Your task to perform on an android device: Do I have any events tomorrow? Image 0: 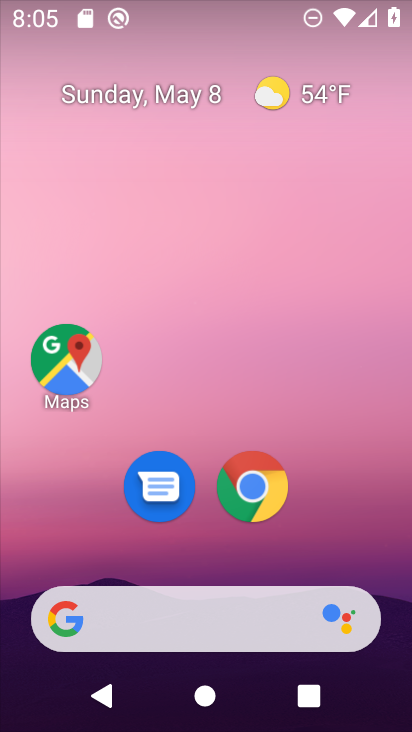
Step 0: drag from (190, 526) to (197, 157)
Your task to perform on an android device: Do I have any events tomorrow? Image 1: 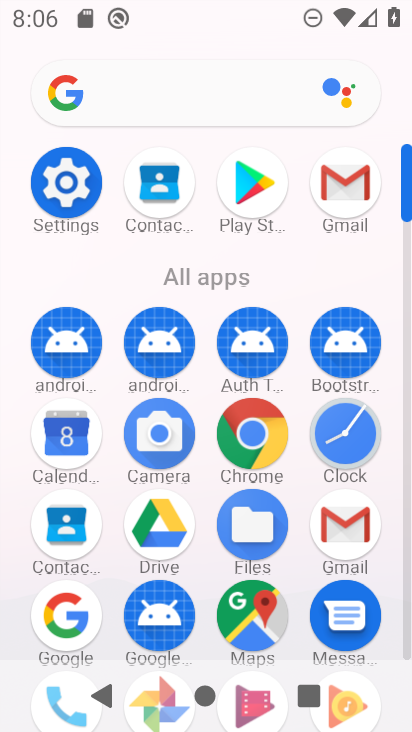
Step 1: click (61, 446)
Your task to perform on an android device: Do I have any events tomorrow? Image 2: 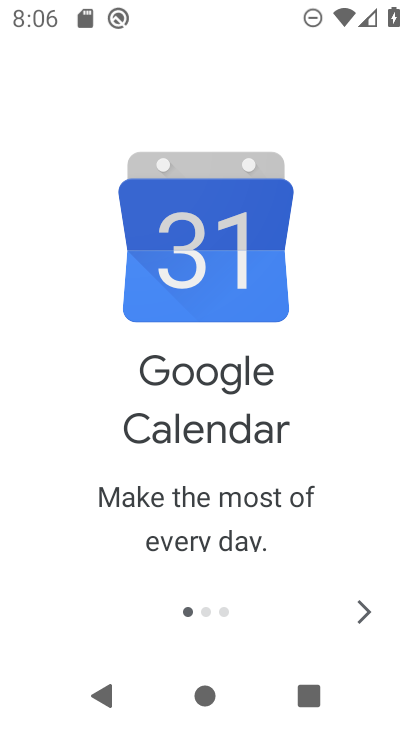
Step 2: click (350, 616)
Your task to perform on an android device: Do I have any events tomorrow? Image 3: 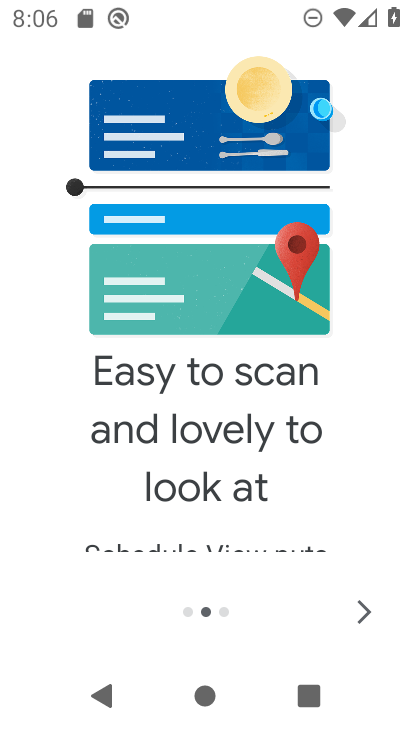
Step 3: click (367, 612)
Your task to perform on an android device: Do I have any events tomorrow? Image 4: 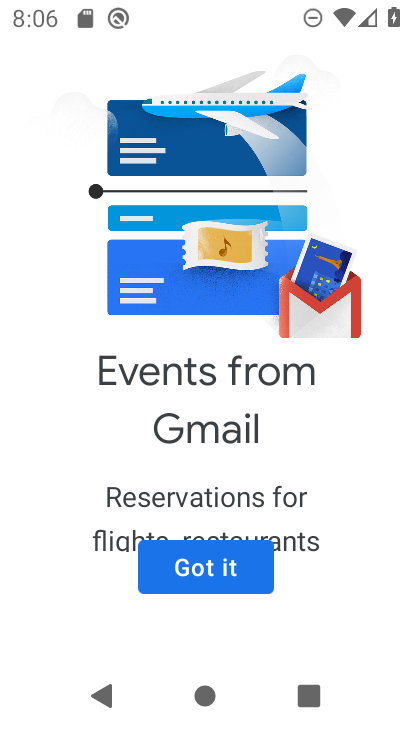
Step 4: click (231, 575)
Your task to perform on an android device: Do I have any events tomorrow? Image 5: 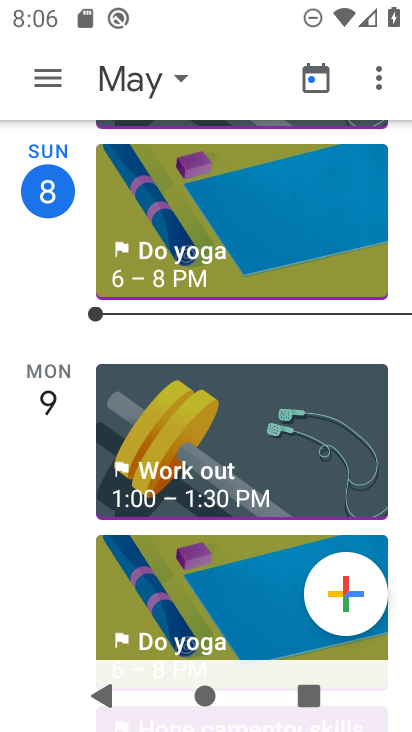
Step 5: click (171, 76)
Your task to perform on an android device: Do I have any events tomorrow? Image 6: 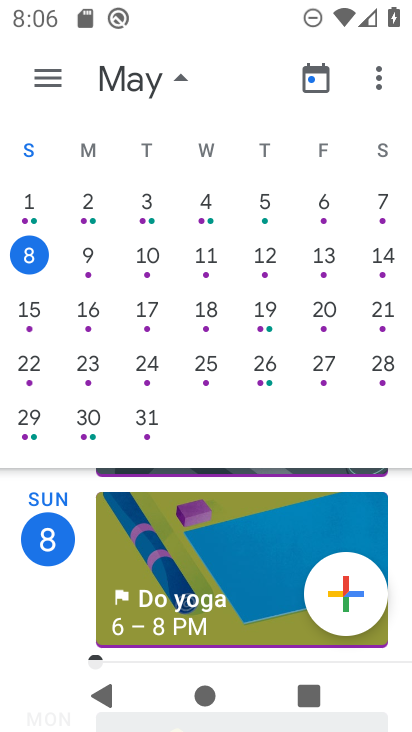
Step 6: click (91, 251)
Your task to perform on an android device: Do I have any events tomorrow? Image 7: 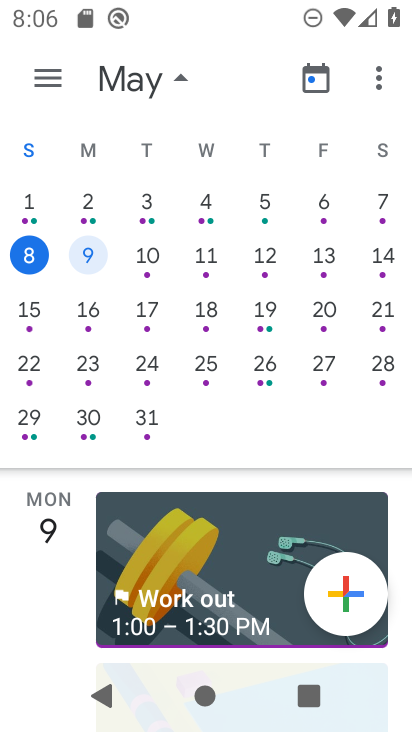
Step 7: task complete